Your task to perform on an android device: turn off notifications in google photos Image 0: 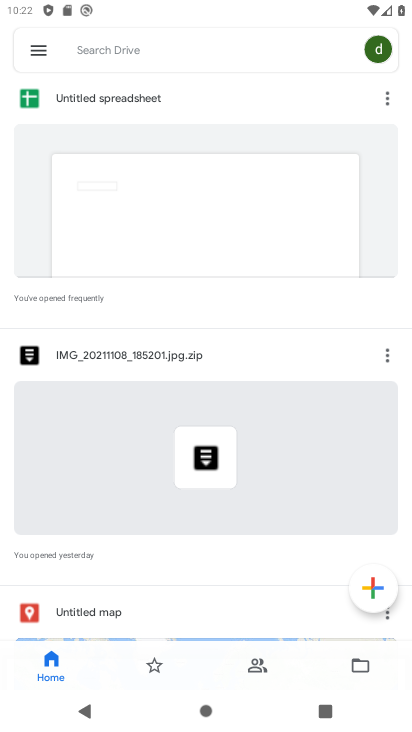
Step 0: press home button
Your task to perform on an android device: turn off notifications in google photos Image 1: 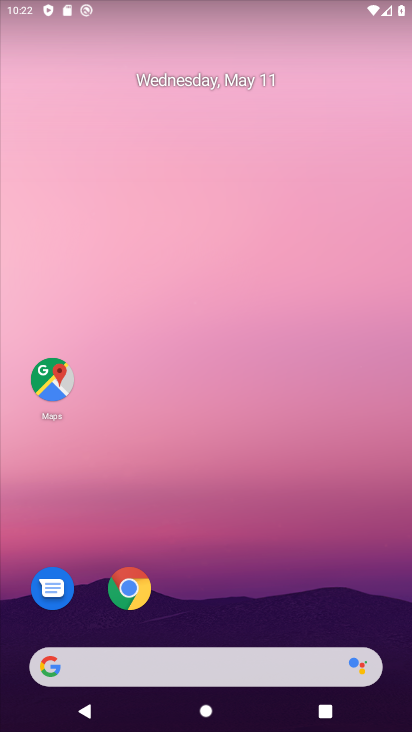
Step 1: drag from (216, 509) to (266, 123)
Your task to perform on an android device: turn off notifications in google photos Image 2: 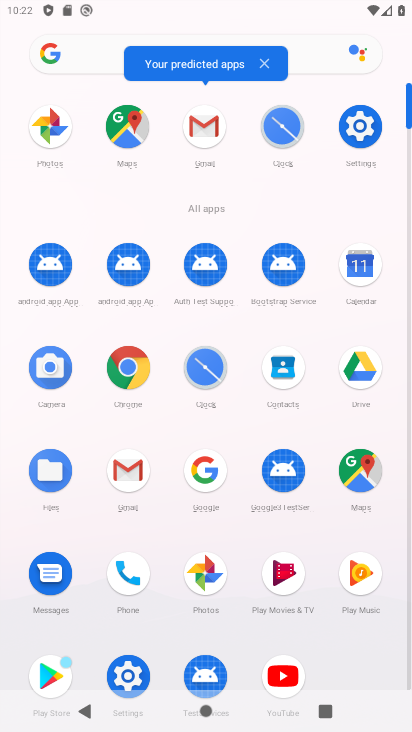
Step 2: click (44, 136)
Your task to perform on an android device: turn off notifications in google photos Image 3: 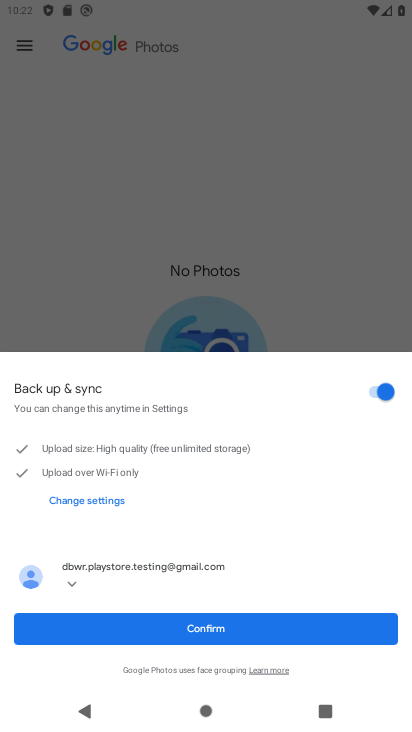
Step 3: click (200, 626)
Your task to perform on an android device: turn off notifications in google photos Image 4: 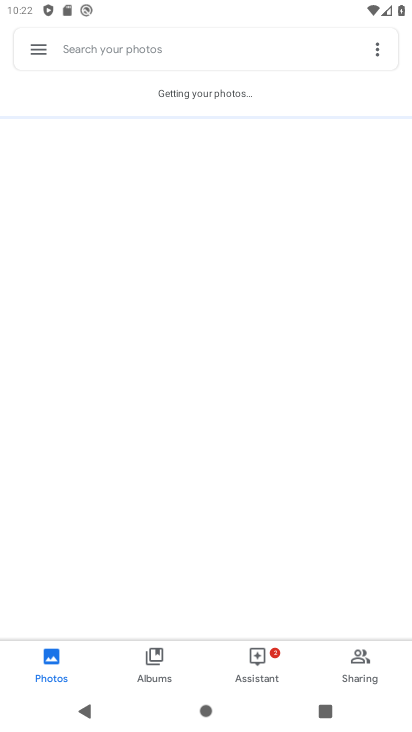
Step 4: click (43, 48)
Your task to perform on an android device: turn off notifications in google photos Image 5: 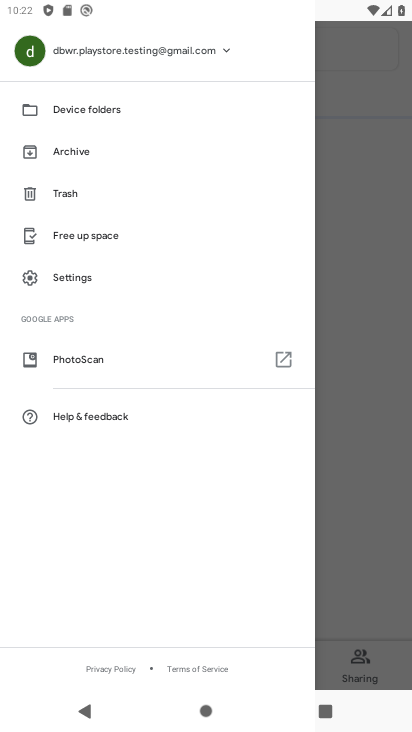
Step 5: click (87, 276)
Your task to perform on an android device: turn off notifications in google photos Image 6: 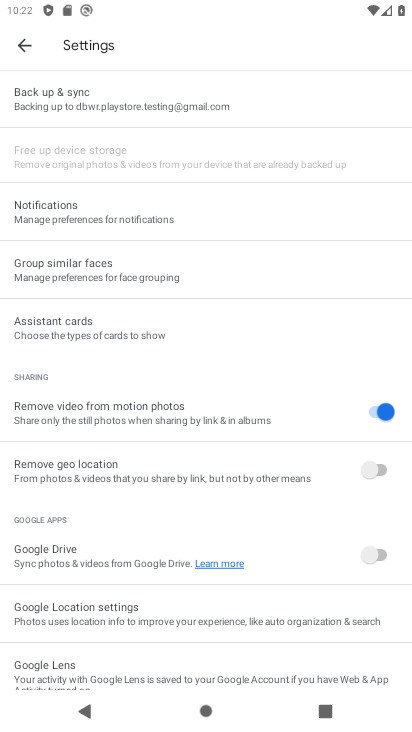
Step 6: click (103, 216)
Your task to perform on an android device: turn off notifications in google photos Image 7: 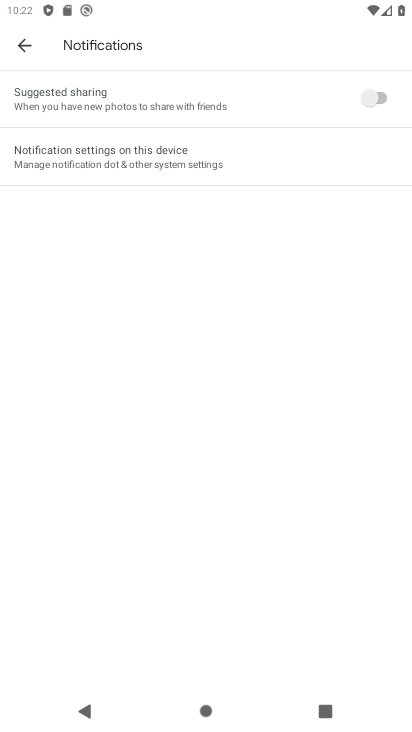
Step 7: task complete